Your task to perform on an android device: stop showing notifications on the lock screen Image 0: 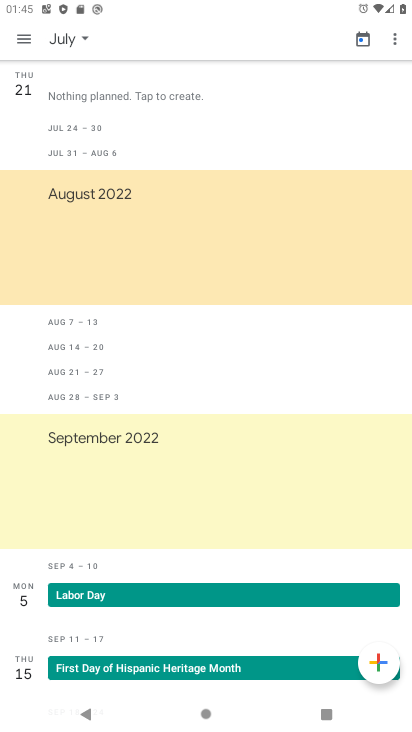
Step 0: press home button
Your task to perform on an android device: stop showing notifications on the lock screen Image 1: 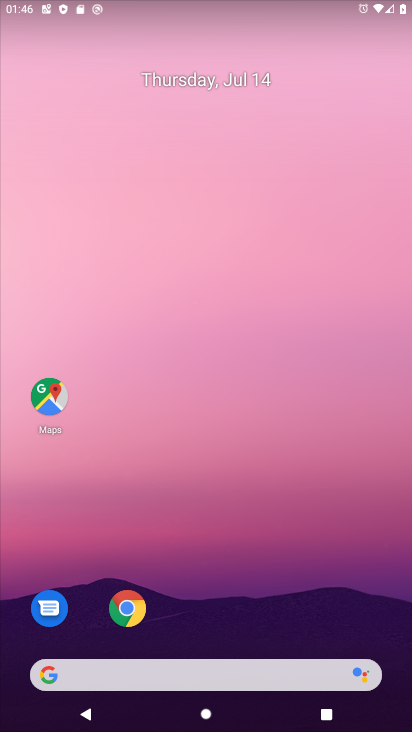
Step 1: drag from (270, 618) to (409, 296)
Your task to perform on an android device: stop showing notifications on the lock screen Image 2: 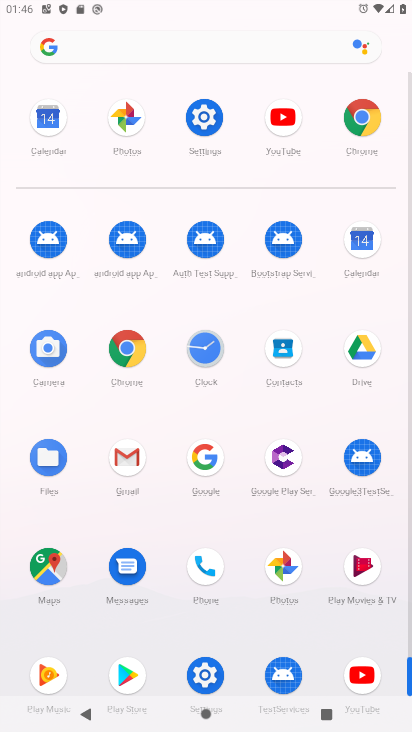
Step 2: click (197, 135)
Your task to perform on an android device: stop showing notifications on the lock screen Image 3: 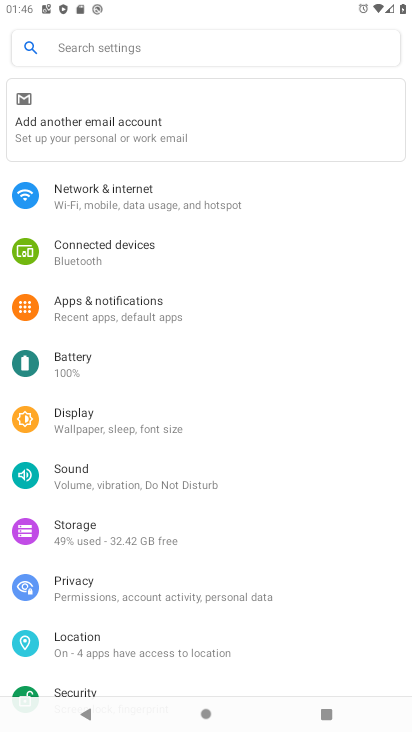
Step 3: drag from (100, 614) to (216, 368)
Your task to perform on an android device: stop showing notifications on the lock screen Image 4: 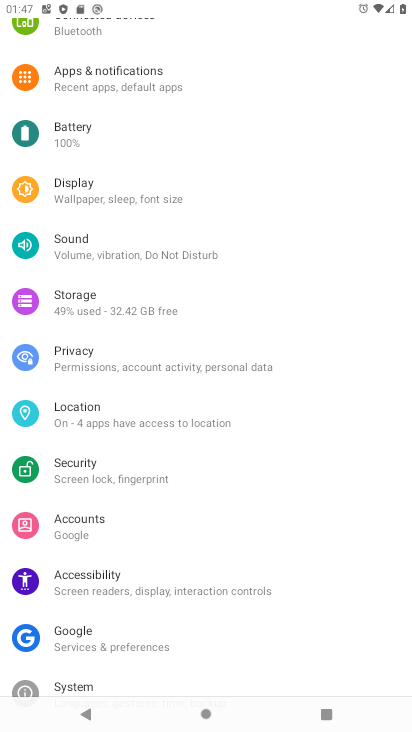
Step 4: click (135, 91)
Your task to perform on an android device: stop showing notifications on the lock screen Image 5: 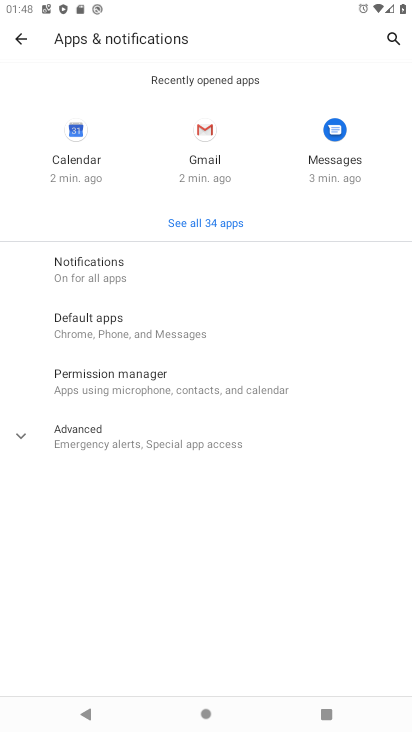
Step 5: click (109, 267)
Your task to perform on an android device: stop showing notifications on the lock screen Image 6: 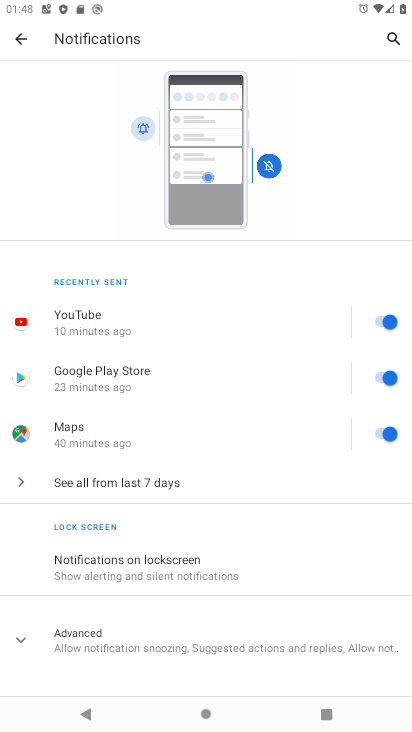
Step 6: click (87, 553)
Your task to perform on an android device: stop showing notifications on the lock screen Image 7: 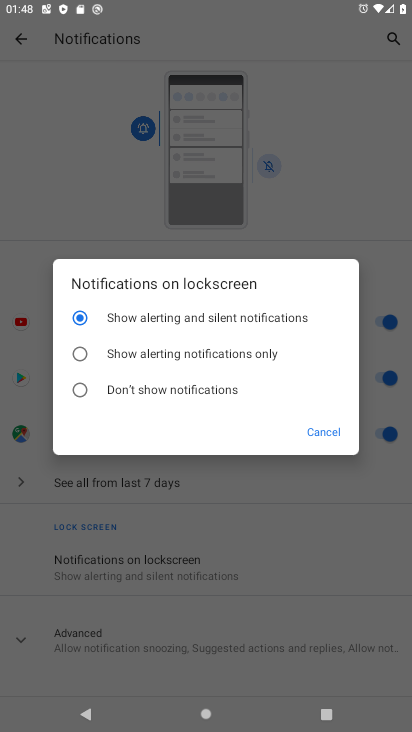
Step 7: click (164, 382)
Your task to perform on an android device: stop showing notifications on the lock screen Image 8: 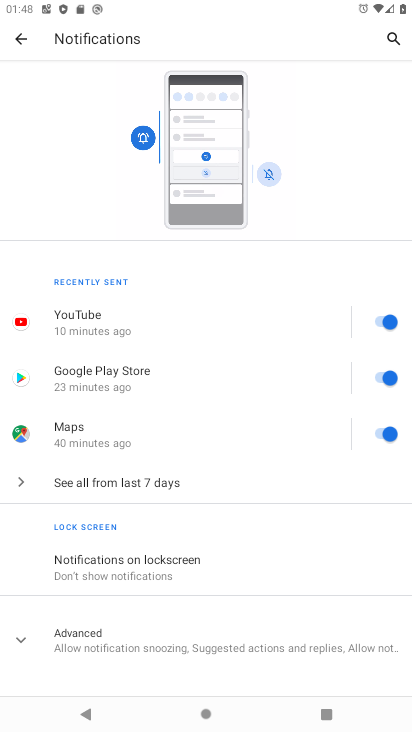
Step 8: task complete